Your task to perform on an android device: open app "WhatsApp Messenger" (install if not already installed) and enter user name: "cartons@outlook.com" and password: "approximated" Image 0: 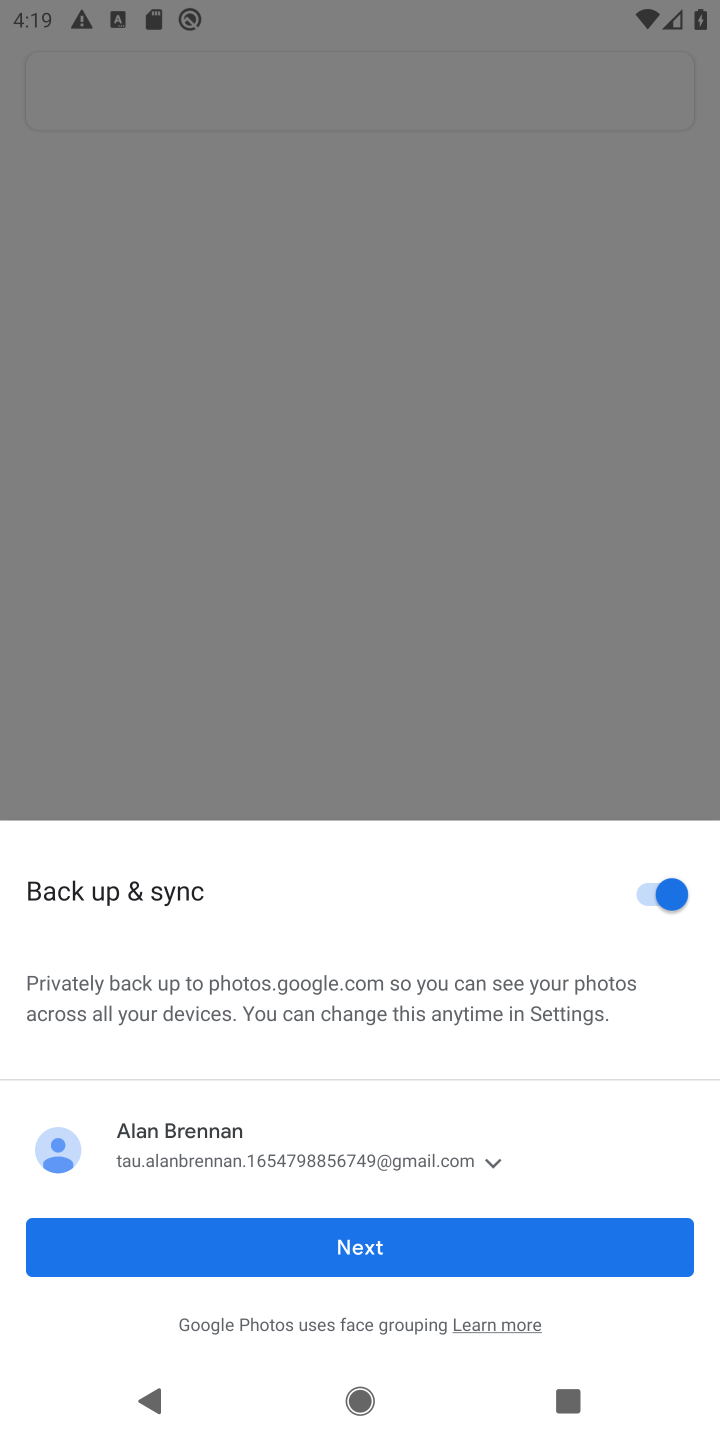
Step 0: press home button
Your task to perform on an android device: open app "WhatsApp Messenger" (install if not already installed) and enter user name: "cartons@outlook.com" and password: "approximated" Image 1: 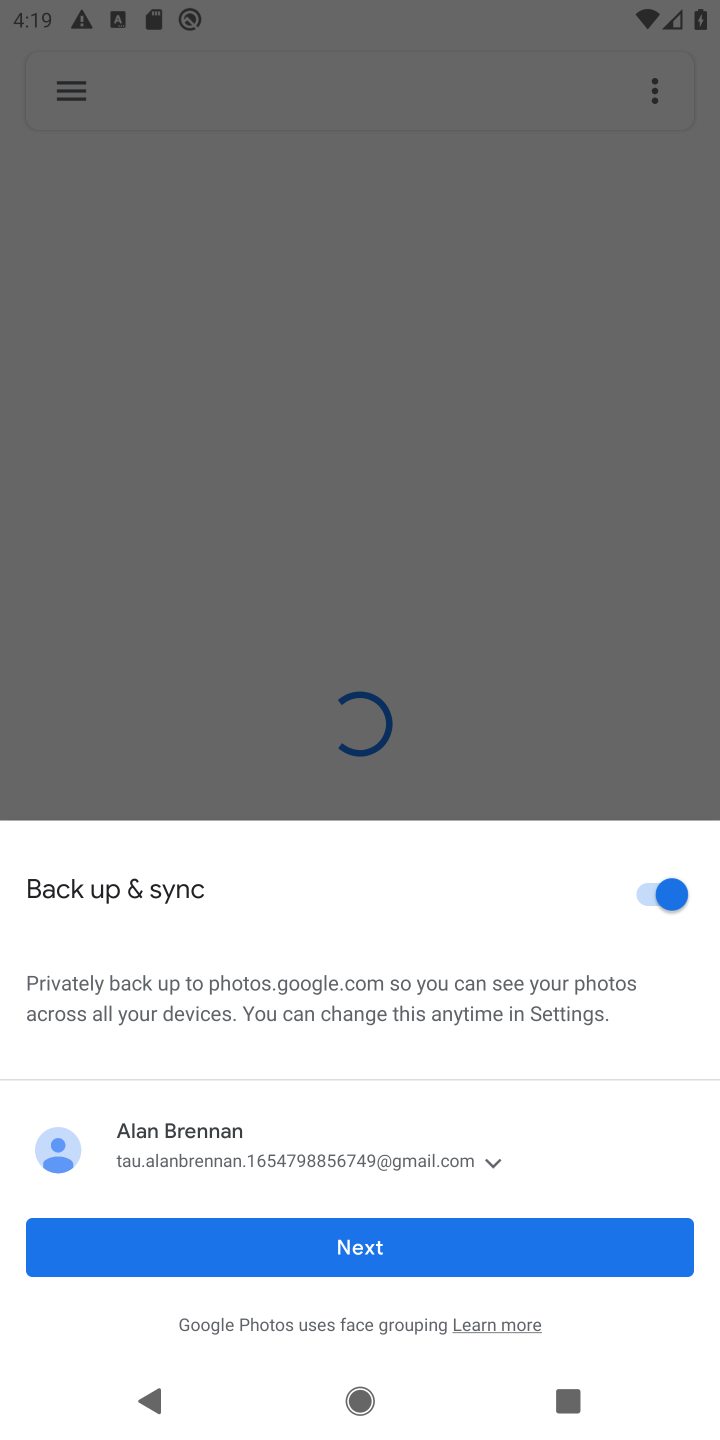
Step 1: press home button
Your task to perform on an android device: open app "WhatsApp Messenger" (install if not already installed) and enter user name: "cartons@outlook.com" and password: "approximated" Image 2: 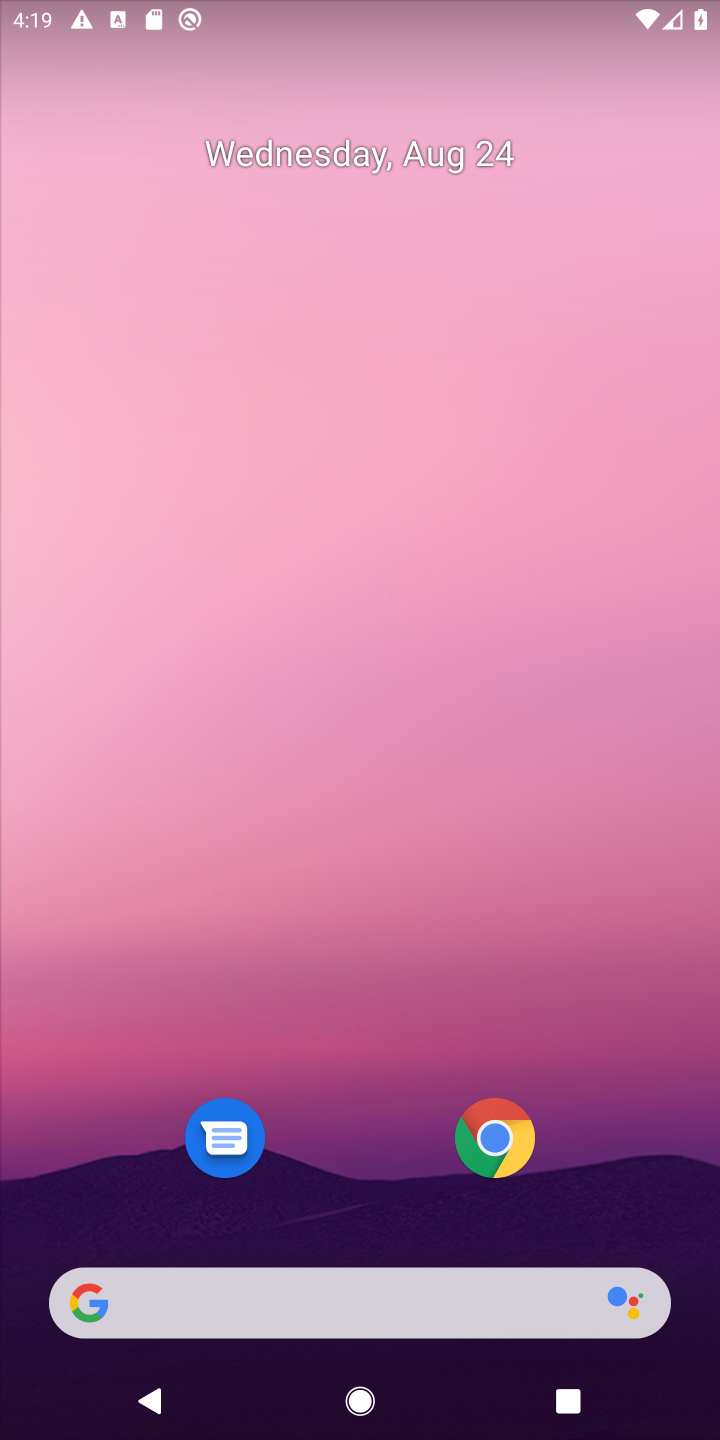
Step 2: press home button
Your task to perform on an android device: open app "WhatsApp Messenger" (install if not already installed) and enter user name: "cartons@outlook.com" and password: "approximated" Image 3: 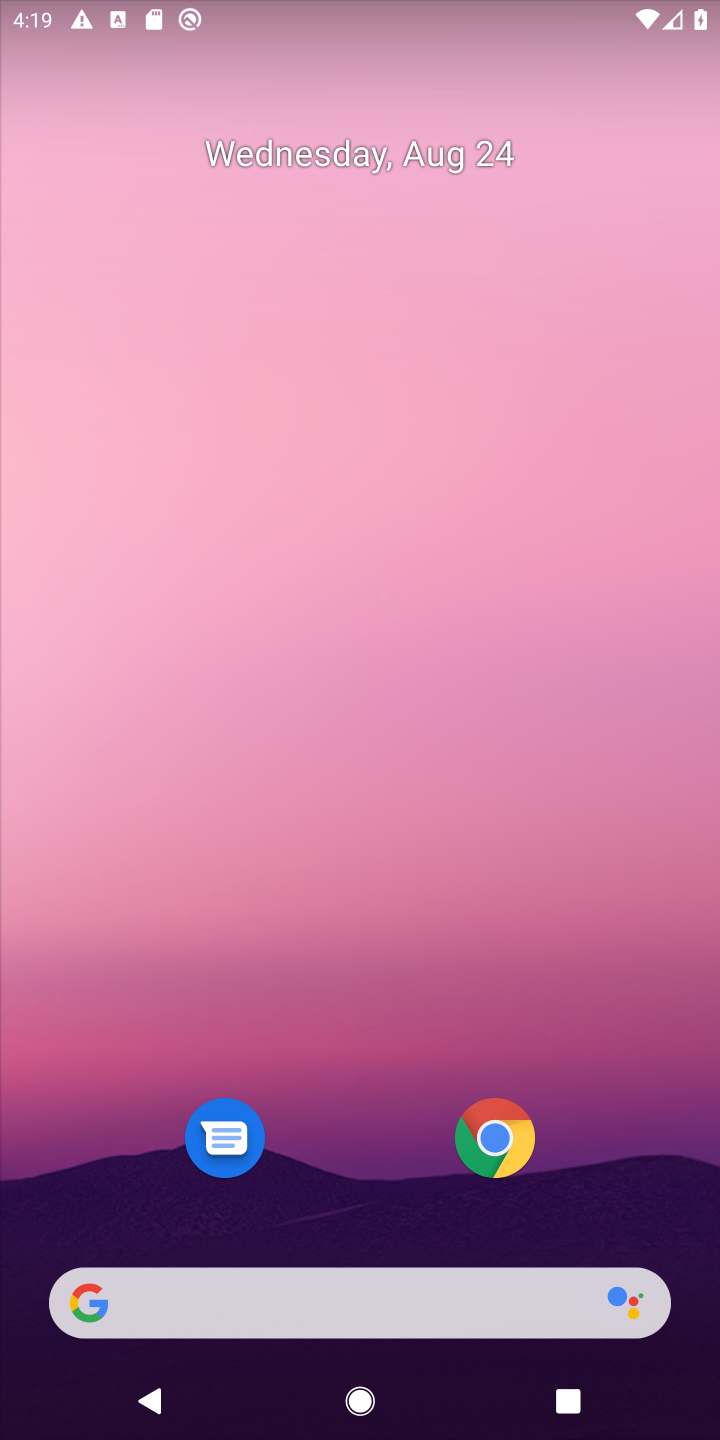
Step 3: drag from (384, 763) to (384, 126)
Your task to perform on an android device: open app "WhatsApp Messenger" (install if not already installed) and enter user name: "cartons@outlook.com" and password: "approximated" Image 4: 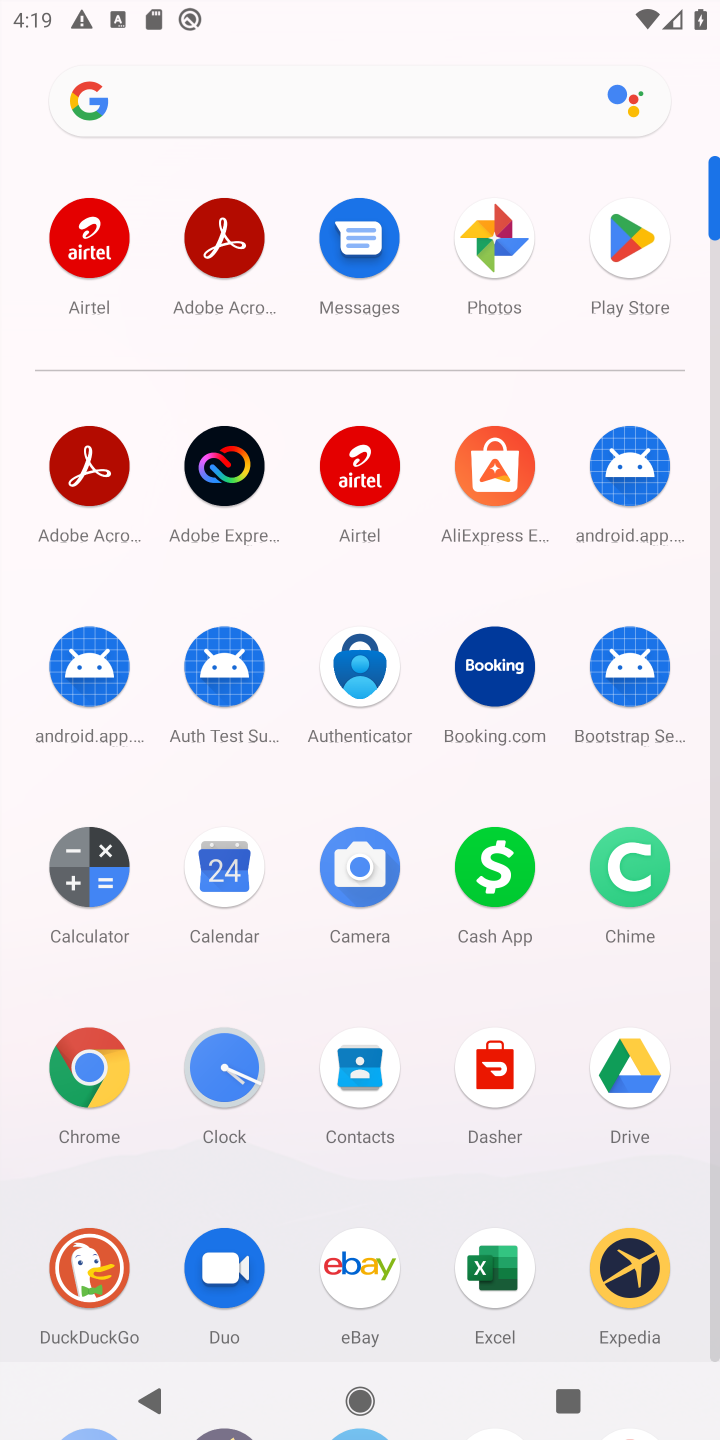
Step 4: drag from (436, 1162) to (440, 525)
Your task to perform on an android device: open app "WhatsApp Messenger" (install if not already installed) and enter user name: "cartons@outlook.com" and password: "approximated" Image 5: 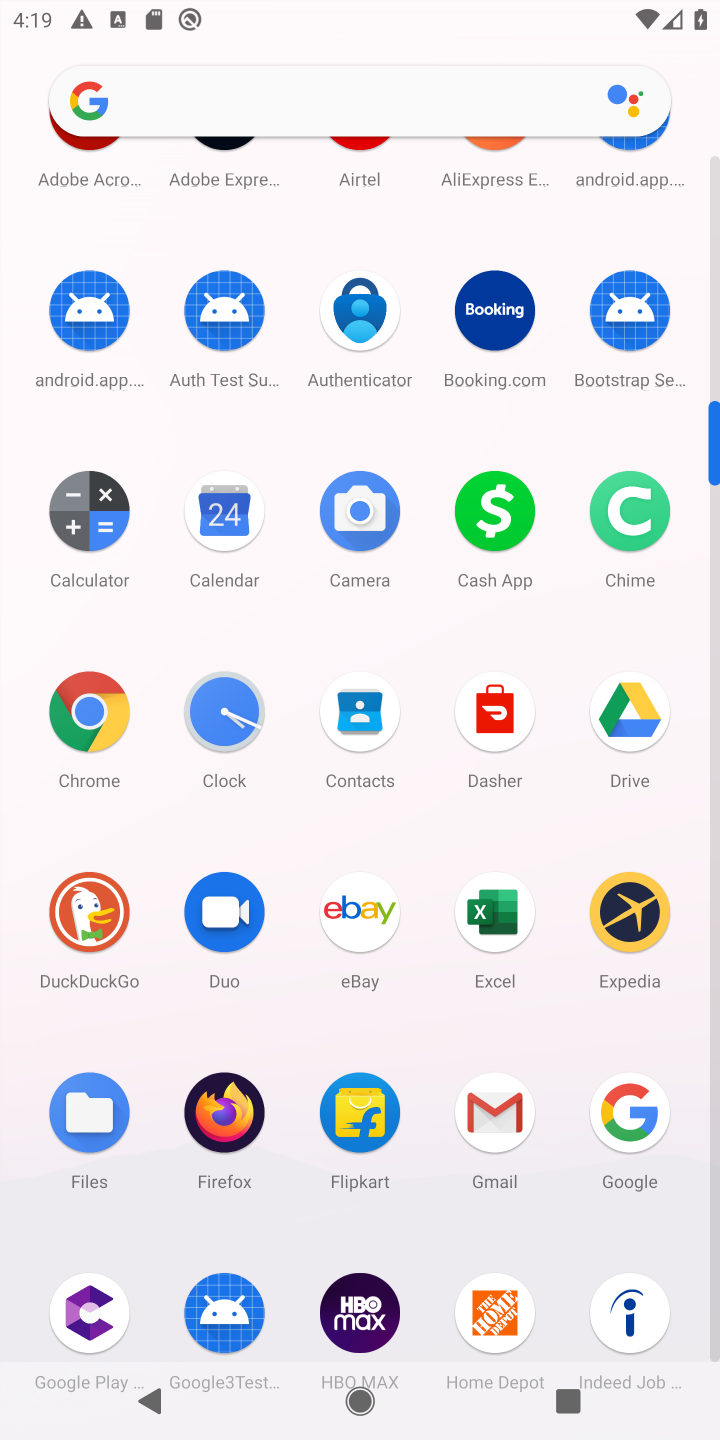
Step 5: drag from (418, 1140) to (349, 448)
Your task to perform on an android device: open app "WhatsApp Messenger" (install if not already installed) and enter user name: "cartons@outlook.com" and password: "approximated" Image 6: 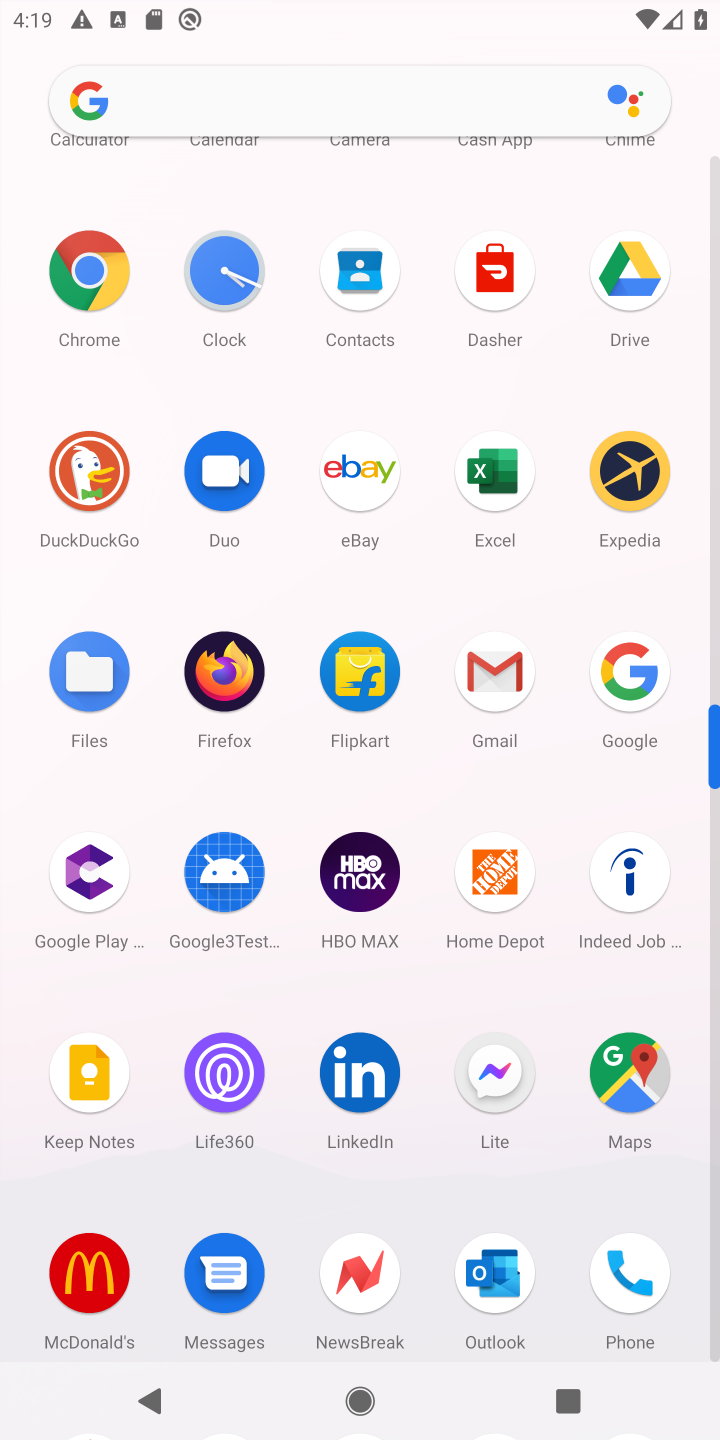
Step 6: drag from (406, 1244) to (325, 569)
Your task to perform on an android device: open app "WhatsApp Messenger" (install if not already installed) and enter user name: "cartons@outlook.com" and password: "approximated" Image 7: 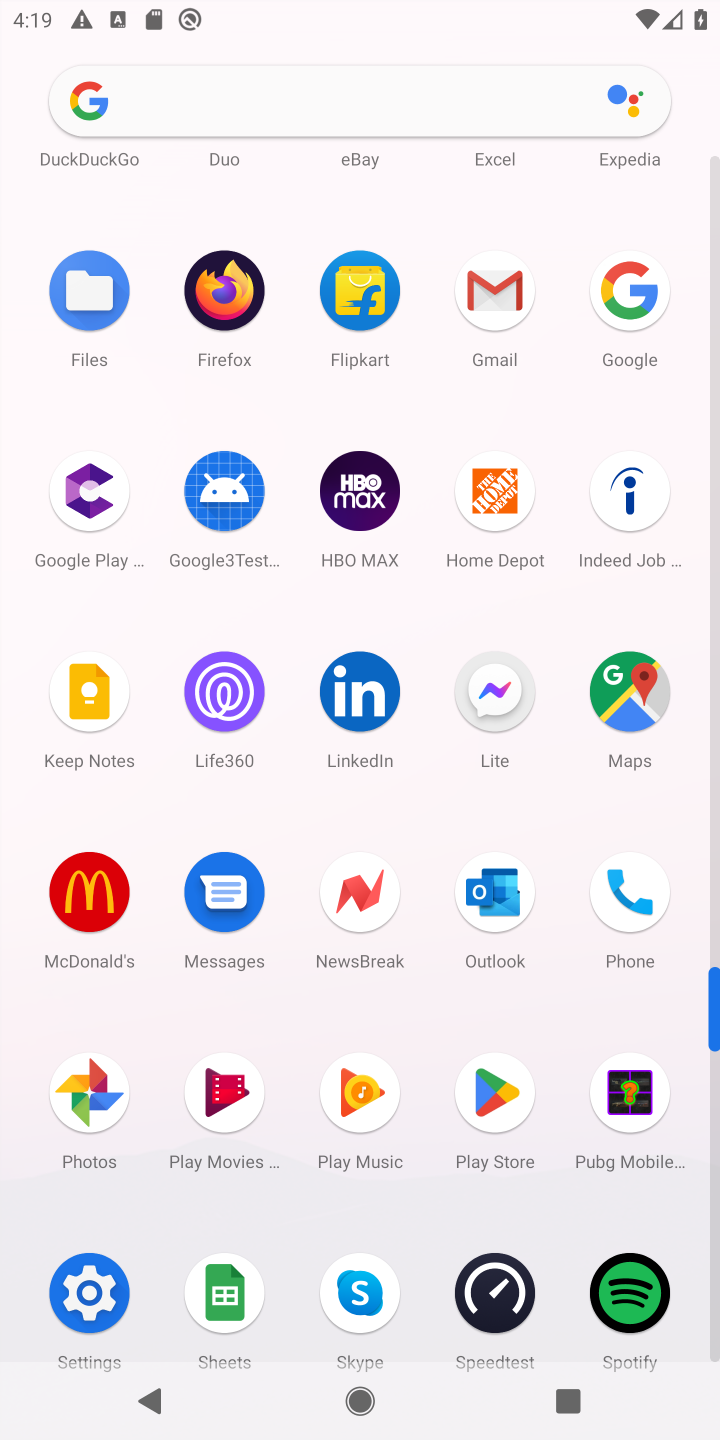
Step 7: drag from (416, 1220) to (399, 827)
Your task to perform on an android device: open app "WhatsApp Messenger" (install if not already installed) and enter user name: "cartons@outlook.com" and password: "approximated" Image 8: 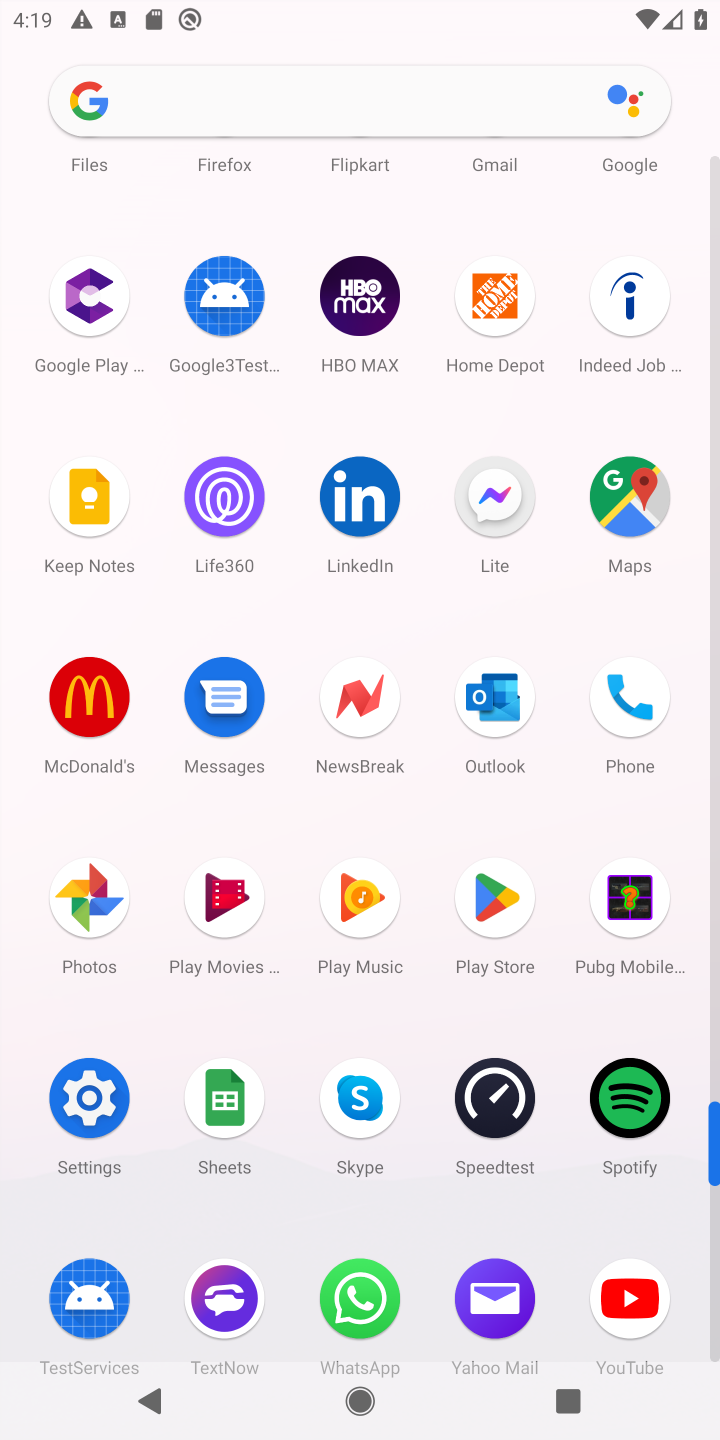
Step 8: click (372, 1297)
Your task to perform on an android device: open app "WhatsApp Messenger" (install if not already installed) and enter user name: "cartons@outlook.com" and password: "approximated" Image 9: 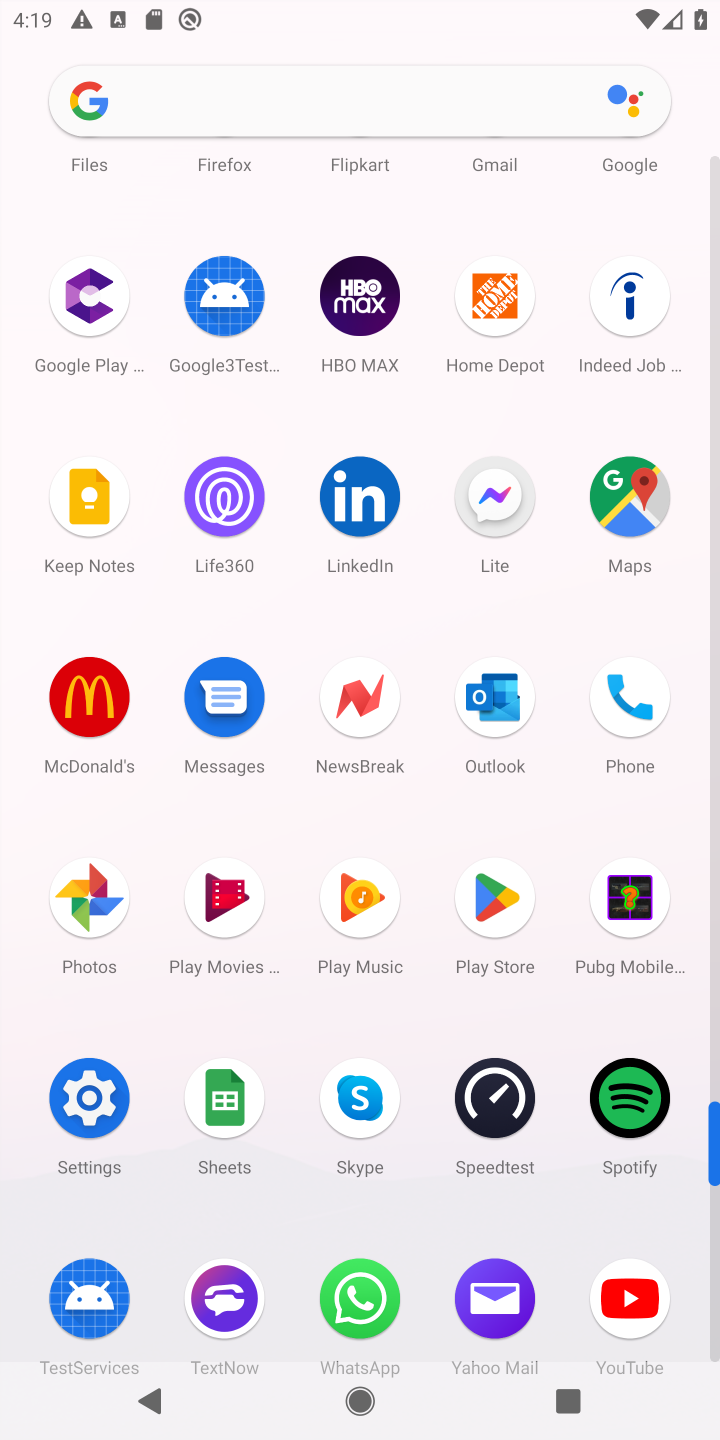
Step 9: click (364, 1291)
Your task to perform on an android device: open app "WhatsApp Messenger" (install if not already installed) and enter user name: "cartons@outlook.com" and password: "approximated" Image 10: 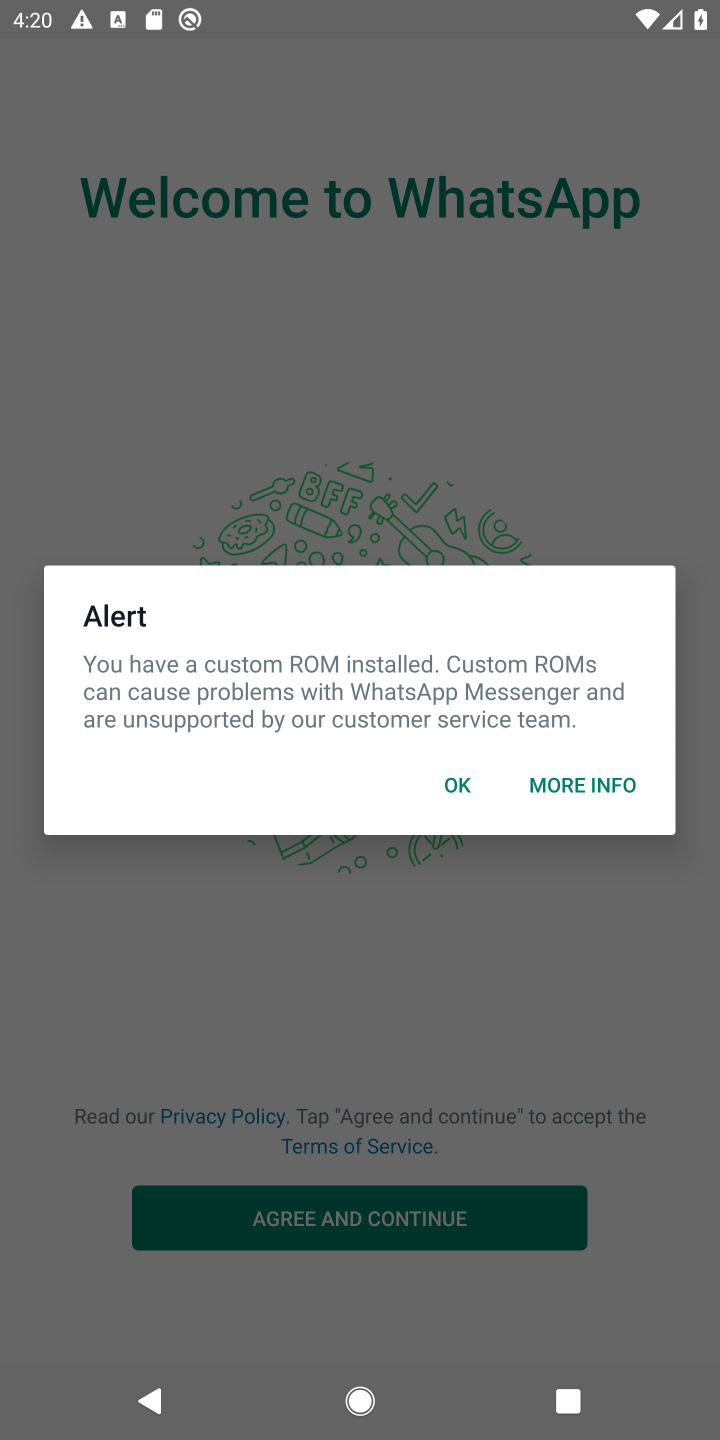
Step 10: task complete